Your task to perform on an android device: Open the calendar and show me this week's events Image 0: 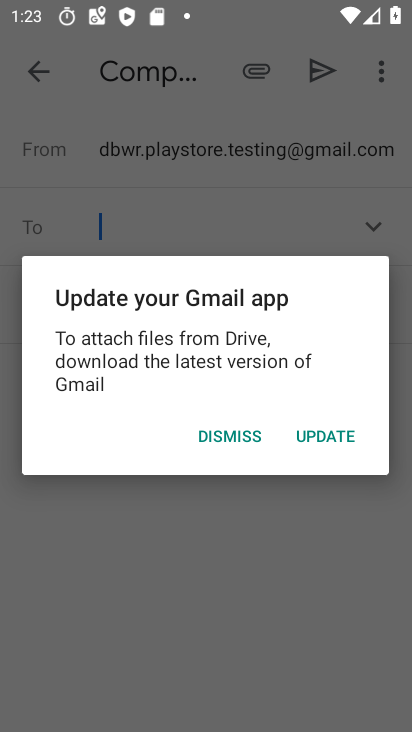
Step 0: press home button
Your task to perform on an android device: Open the calendar and show me this week's events Image 1: 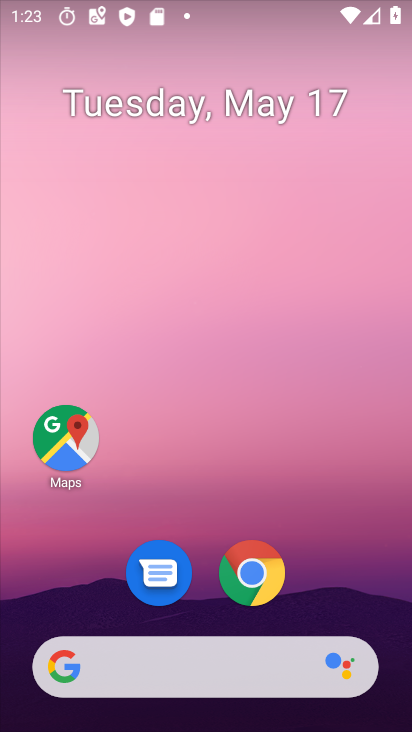
Step 1: drag from (205, 656) to (265, 190)
Your task to perform on an android device: Open the calendar and show me this week's events Image 2: 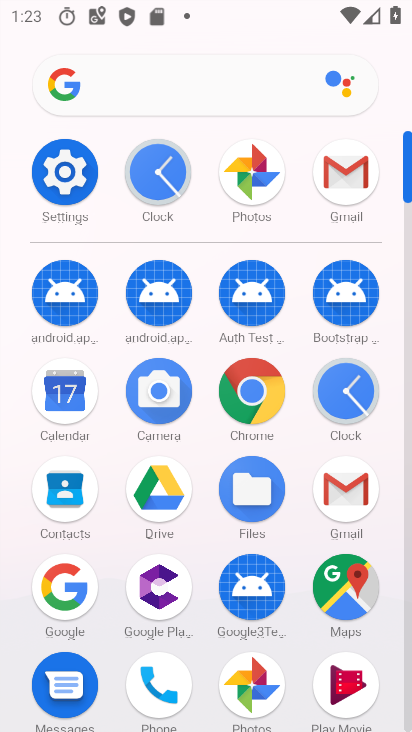
Step 2: click (77, 402)
Your task to perform on an android device: Open the calendar and show me this week's events Image 3: 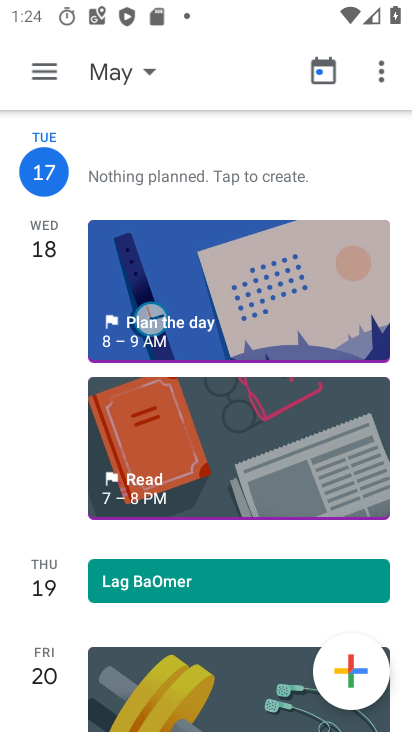
Step 3: task complete